Your task to perform on an android device: open wifi settings Image 0: 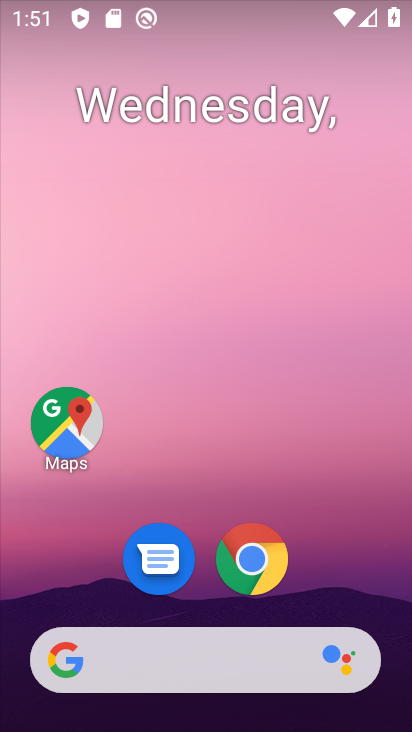
Step 0: drag from (217, 257) to (229, 36)
Your task to perform on an android device: open wifi settings Image 1: 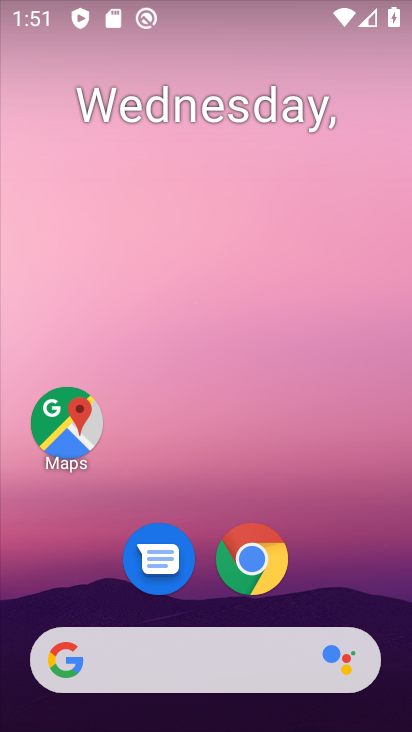
Step 1: drag from (209, 404) to (234, 30)
Your task to perform on an android device: open wifi settings Image 2: 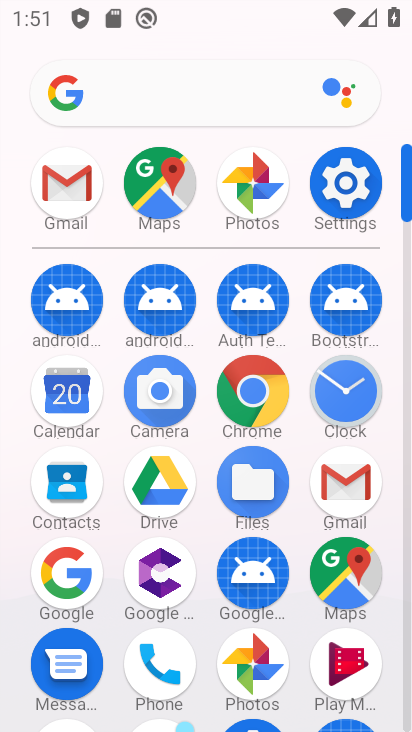
Step 2: click (348, 195)
Your task to perform on an android device: open wifi settings Image 3: 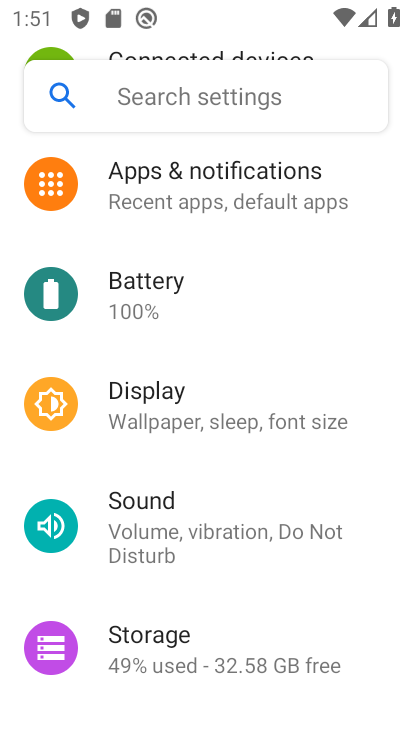
Step 3: drag from (227, 262) to (228, 698)
Your task to perform on an android device: open wifi settings Image 4: 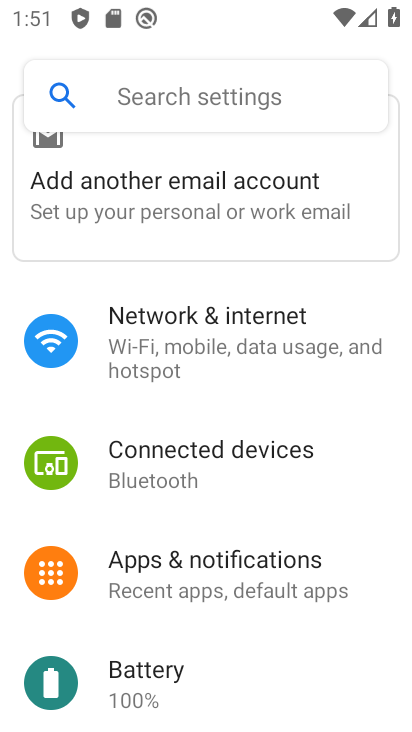
Step 4: click (221, 317)
Your task to perform on an android device: open wifi settings Image 5: 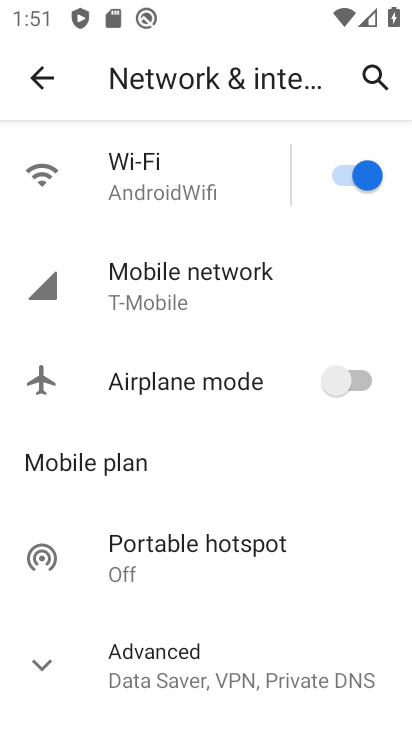
Step 5: click (197, 197)
Your task to perform on an android device: open wifi settings Image 6: 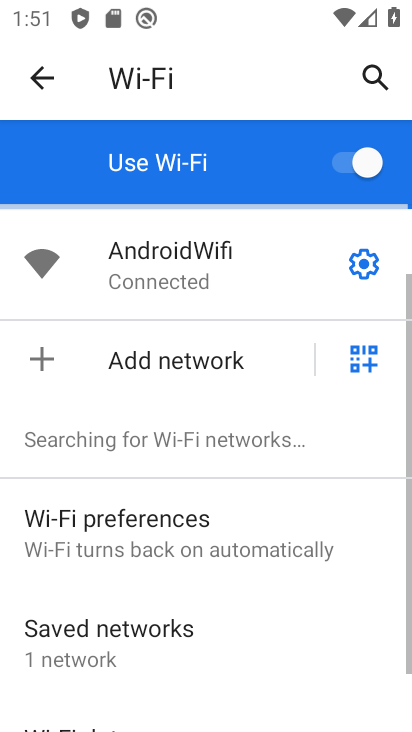
Step 6: task complete